Your task to perform on an android device: Open battery settings Image 0: 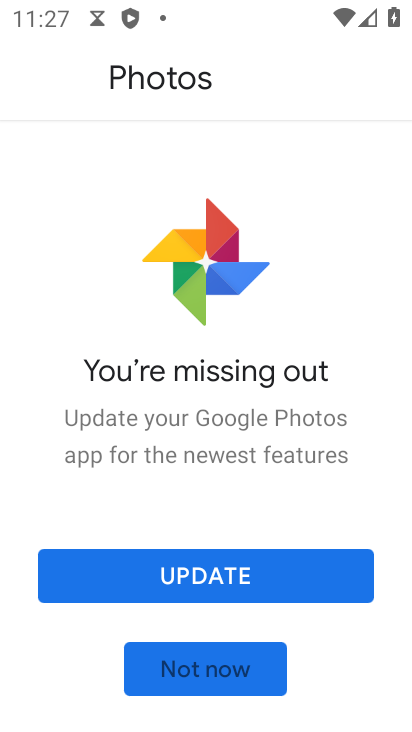
Step 0: press back button
Your task to perform on an android device: Open battery settings Image 1: 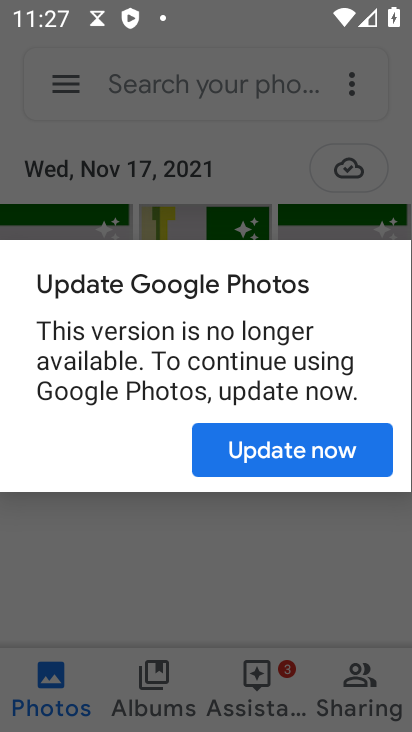
Step 1: press home button
Your task to perform on an android device: Open battery settings Image 2: 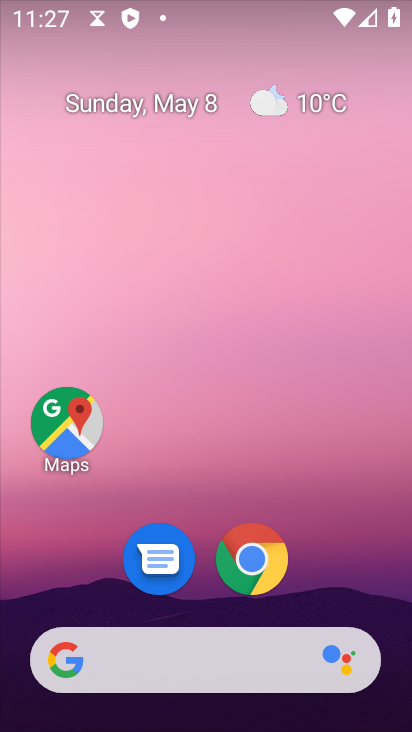
Step 2: drag from (211, 576) to (172, 0)
Your task to perform on an android device: Open battery settings Image 3: 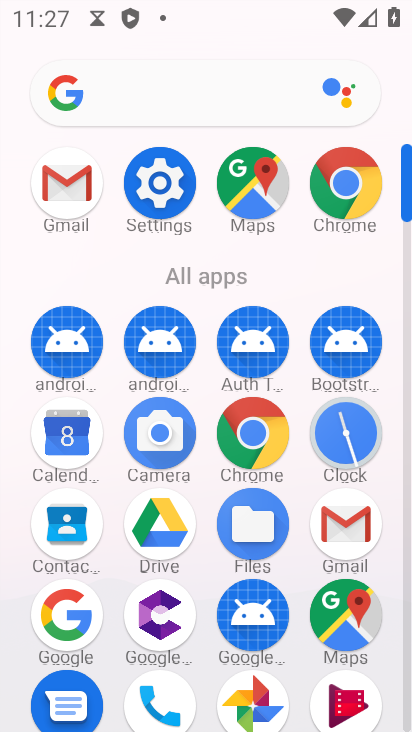
Step 3: click (137, 213)
Your task to perform on an android device: Open battery settings Image 4: 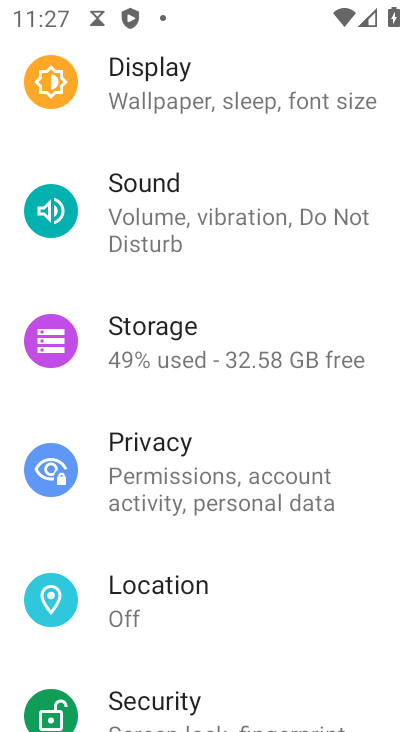
Step 4: drag from (201, 244) to (235, 624)
Your task to perform on an android device: Open battery settings Image 5: 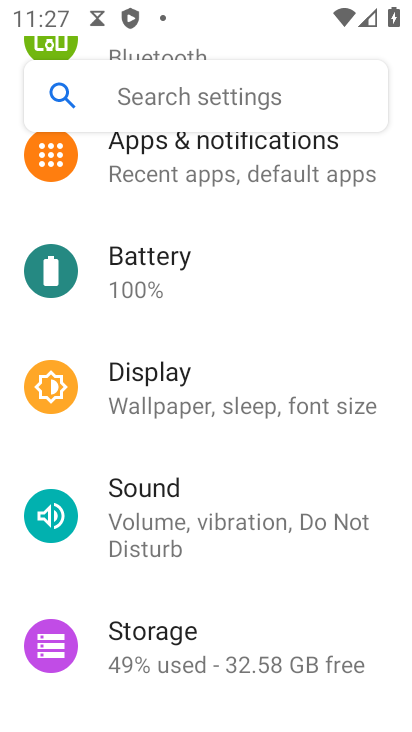
Step 5: click (177, 286)
Your task to perform on an android device: Open battery settings Image 6: 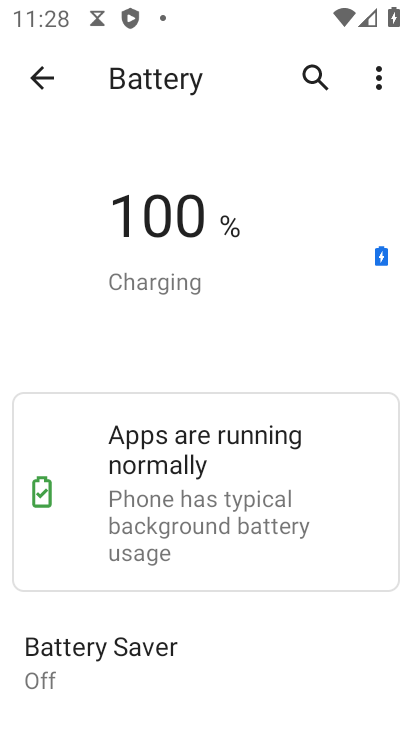
Step 6: task complete